Your task to perform on an android device: toggle show notifications on the lock screen Image 0: 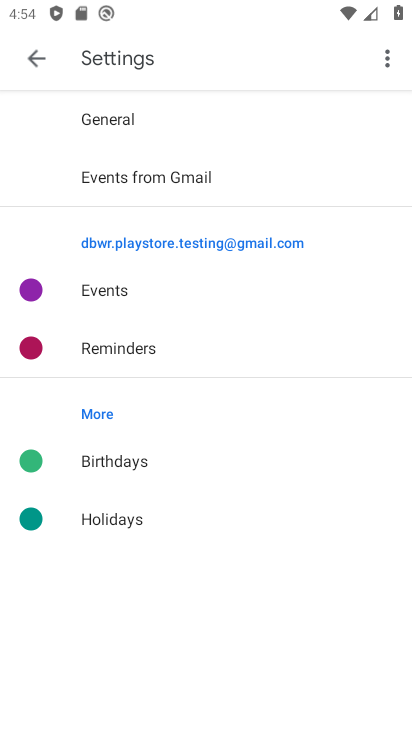
Step 0: click (23, 38)
Your task to perform on an android device: toggle show notifications on the lock screen Image 1: 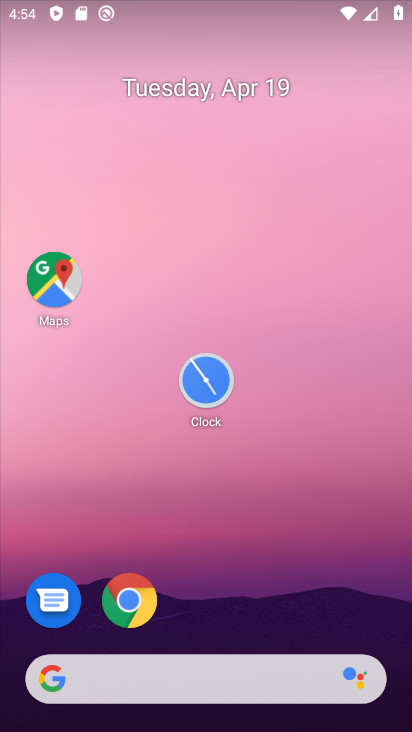
Step 1: drag from (281, 428) to (241, 153)
Your task to perform on an android device: toggle show notifications on the lock screen Image 2: 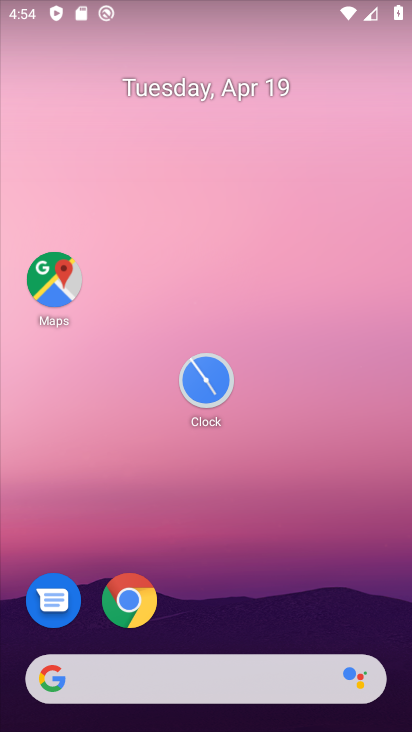
Step 2: drag from (262, 337) to (192, 98)
Your task to perform on an android device: toggle show notifications on the lock screen Image 3: 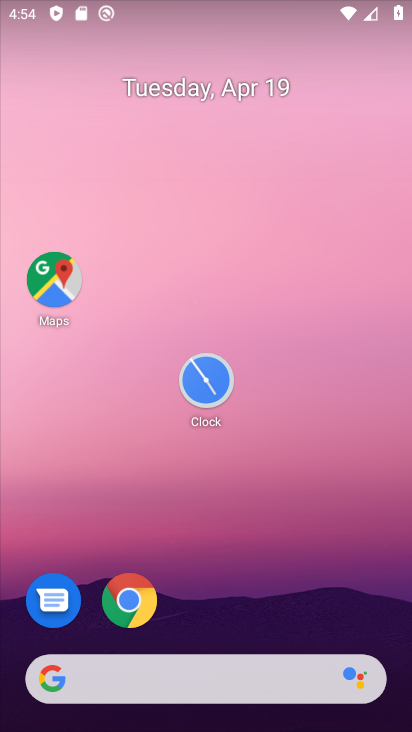
Step 3: drag from (285, 544) to (177, 90)
Your task to perform on an android device: toggle show notifications on the lock screen Image 4: 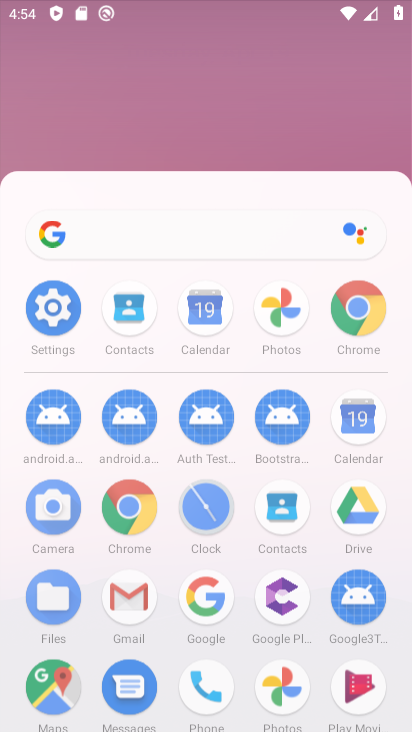
Step 4: drag from (253, 209) to (277, 24)
Your task to perform on an android device: toggle show notifications on the lock screen Image 5: 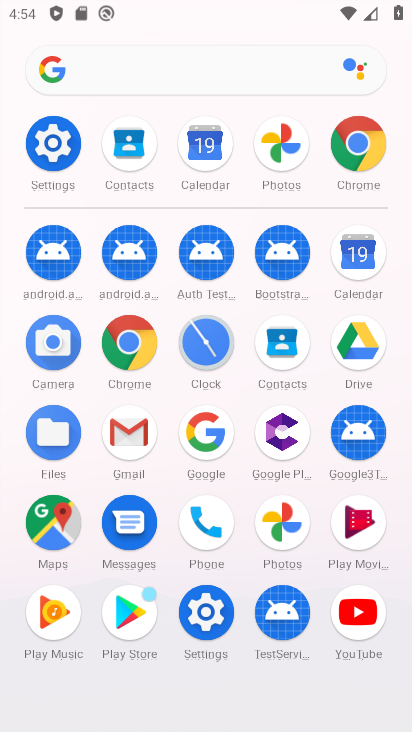
Step 5: click (44, 130)
Your task to perform on an android device: toggle show notifications on the lock screen Image 6: 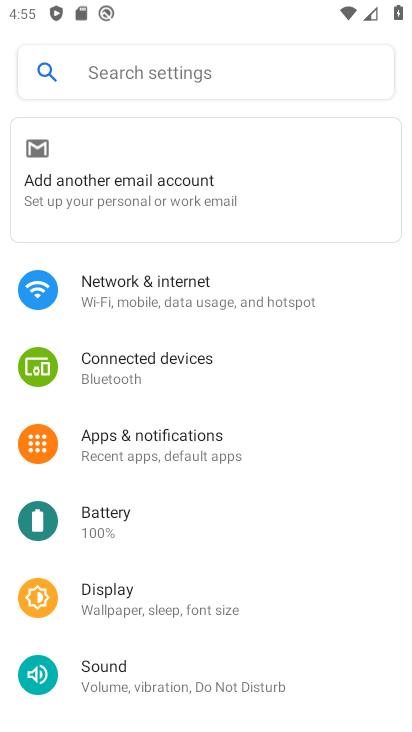
Step 6: click (149, 442)
Your task to perform on an android device: toggle show notifications on the lock screen Image 7: 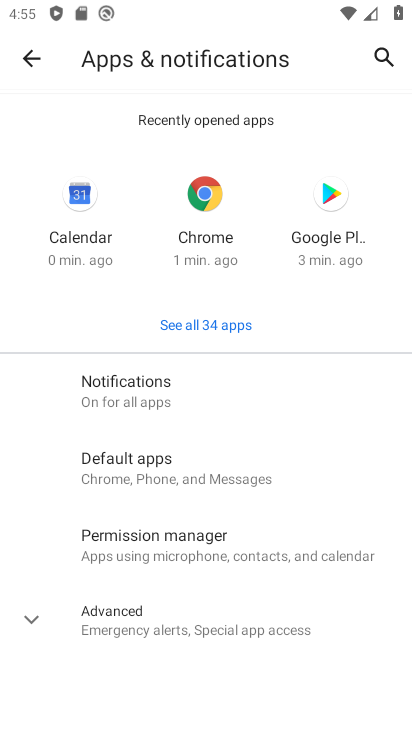
Step 7: click (116, 390)
Your task to perform on an android device: toggle show notifications on the lock screen Image 8: 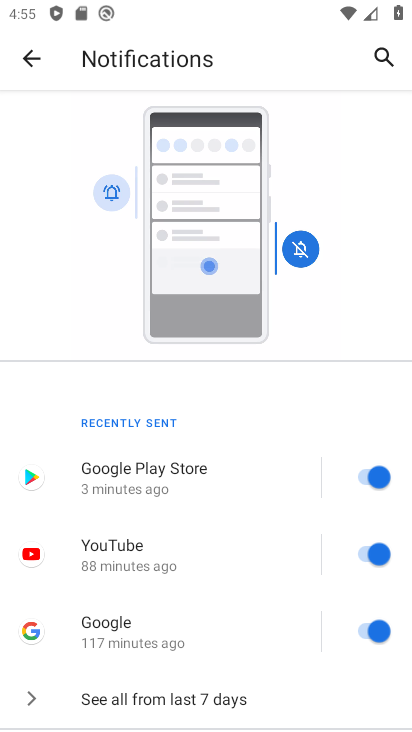
Step 8: click (189, 304)
Your task to perform on an android device: toggle show notifications on the lock screen Image 9: 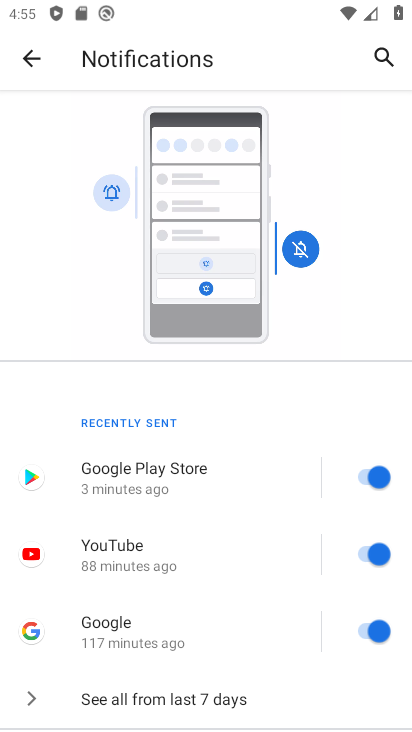
Step 9: drag from (236, 553) to (201, 291)
Your task to perform on an android device: toggle show notifications on the lock screen Image 10: 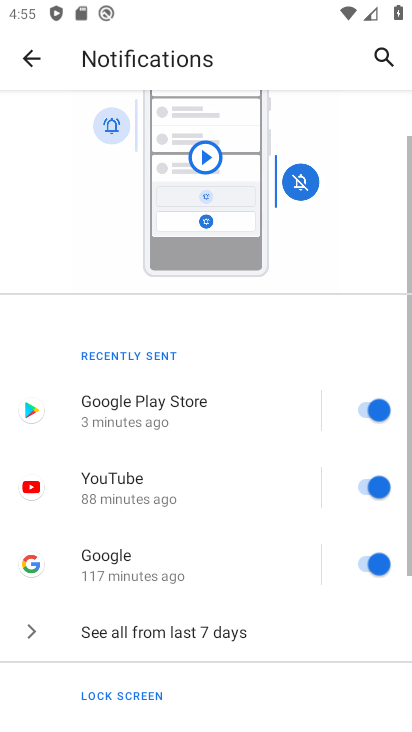
Step 10: click (110, 172)
Your task to perform on an android device: toggle show notifications on the lock screen Image 11: 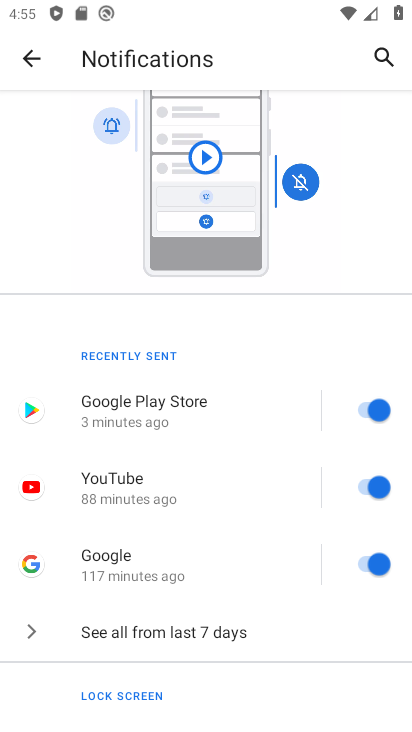
Step 11: drag from (156, 257) to (215, 222)
Your task to perform on an android device: toggle show notifications on the lock screen Image 12: 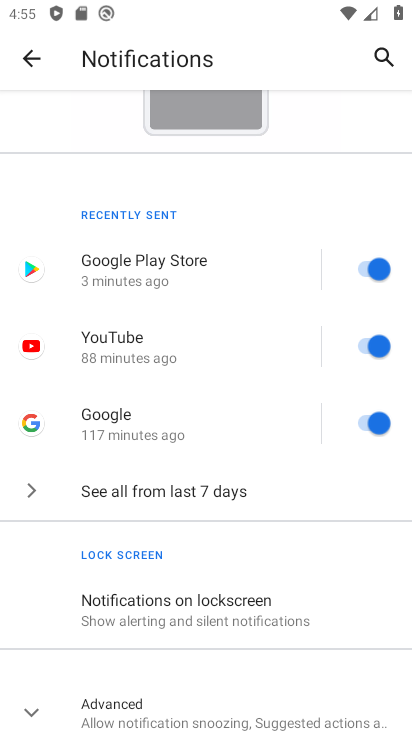
Step 12: drag from (216, 486) to (174, 290)
Your task to perform on an android device: toggle show notifications on the lock screen Image 13: 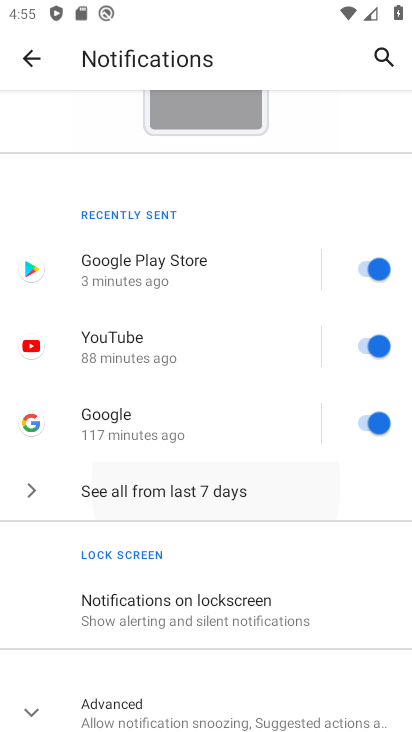
Step 13: drag from (208, 305) to (195, 223)
Your task to perform on an android device: toggle show notifications on the lock screen Image 14: 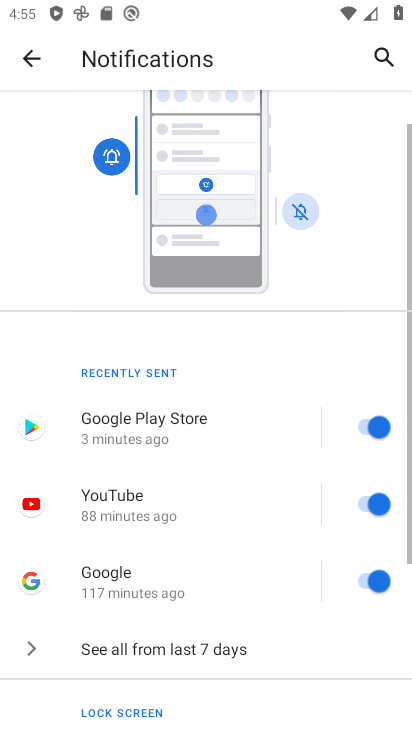
Step 14: drag from (192, 265) to (189, 217)
Your task to perform on an android device: toggle show notifications on the lock screen Image 15: 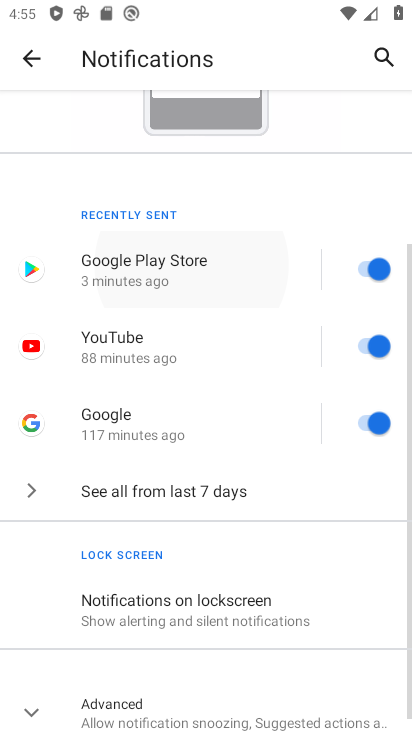
Step 15: drag from (215, 316) to (213, 214)
Your task to perform on an android device: toggle show notifications on the lock screen Image 16: 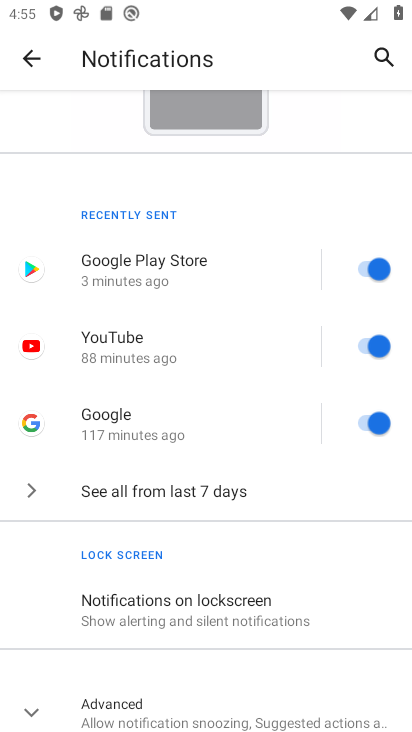
Step 16: click (108, 602)
Your task to perform on an android device: toggle show notifications on the lock screen Image 17: 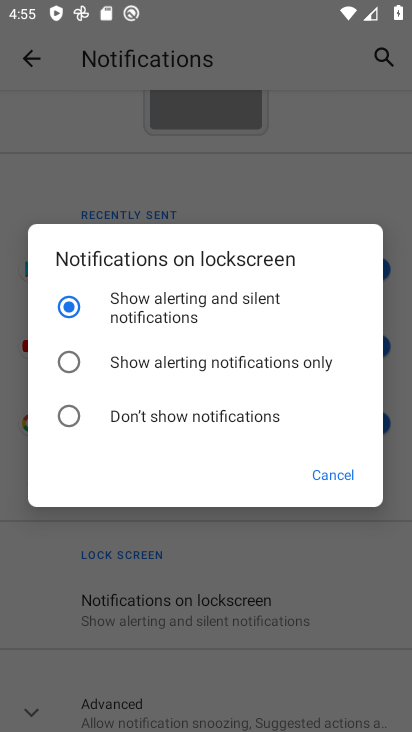
Step 17: task complete